Your task to perform on an android device: change the upload size in google photos Image 0: 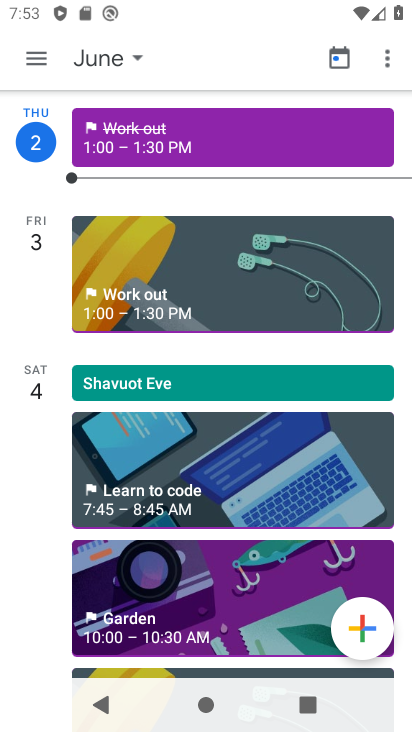
Step 0: press home button
Your task to perform on an android device: change the upload size in google photos Image 1: 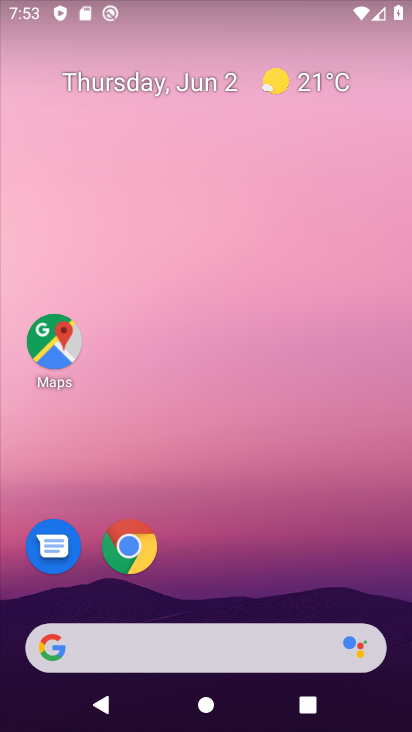
Step 1: click (59, 326)
Your task to perform on an android device: change the upload size in google photos Image 2: 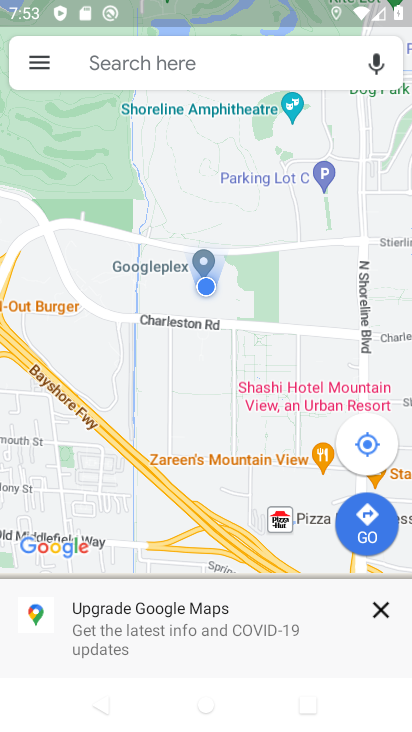
Step 2: press back button
Your task to perform on an android device: change the upload size in google photos Image 3: 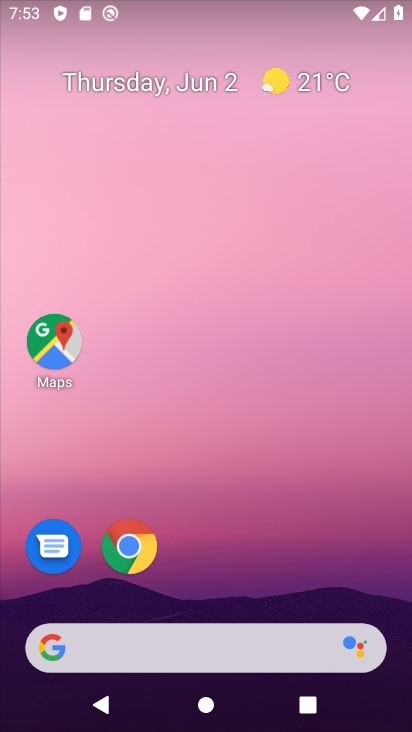
Step 3: drag from (264, 553) to (267, 29)
Your task to perform on an android device: change the upload size in google photos Image 4: 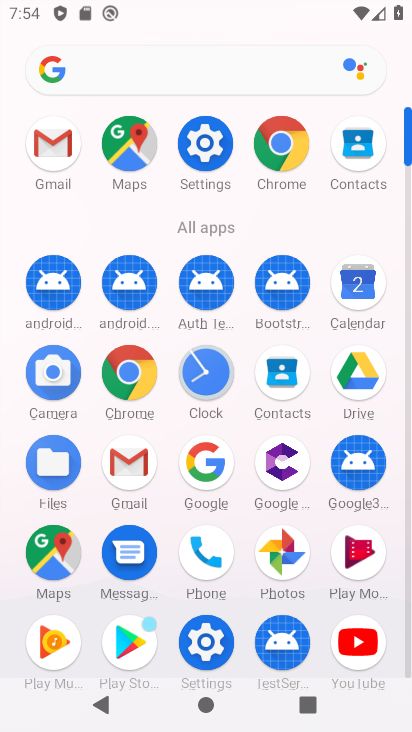
Step 4: click (283, 550)
Your task to perform on an android device: change the upload size in google photos Image 5: 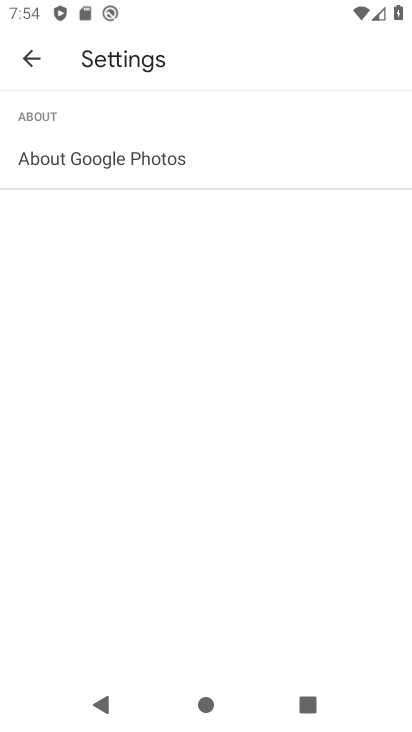
Step 5: click (29, 51)
Your task to perform on an android device: change the upload size in google photos Image 6: 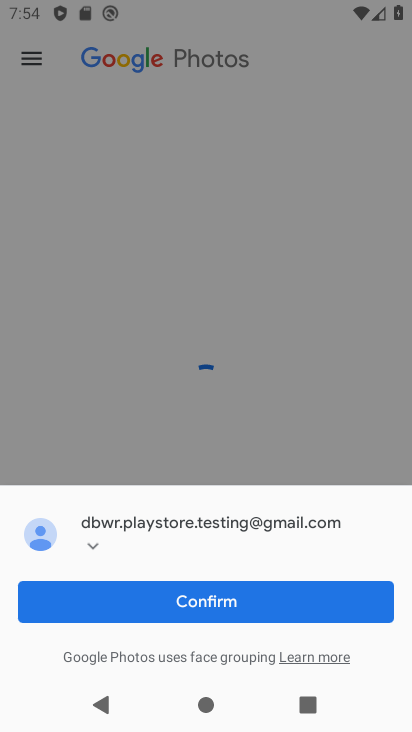
Step 6: click (32, 57)
Your task to perform on an android device: change the upload size in google photos Image 7: 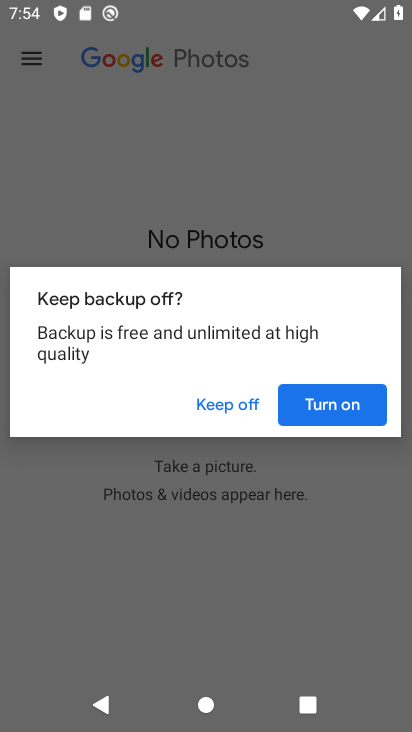
Step 7: click (324, 408)
Your task to perform on an android device: change the upload size in google photos Image 8: 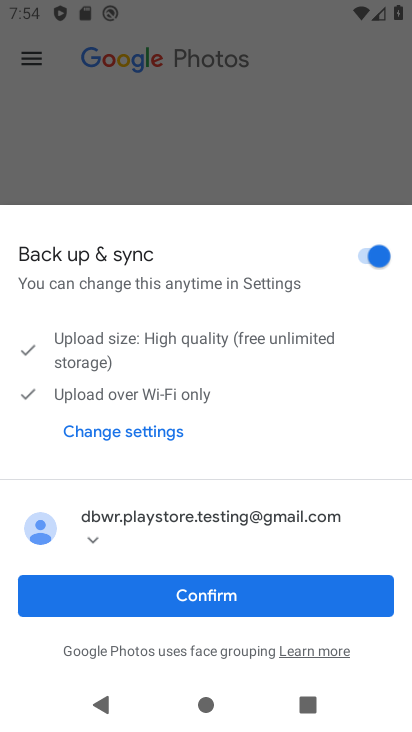
Step 8: click (355, 591)
Your task to perform on an android device: change the upload size in google photos Image 9: 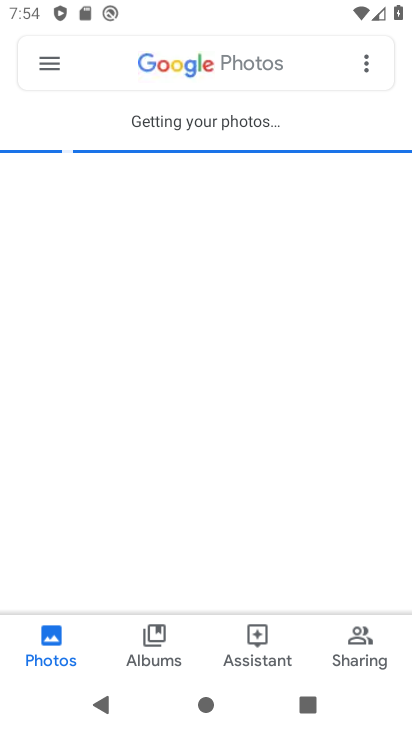
Step 9: click (36, 59)
Your task to perform on an android device: change the upload size in google photos Image 10: 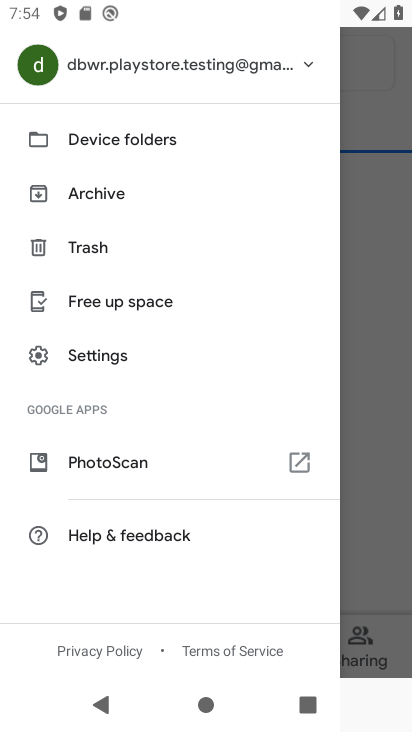
Step 10: click (106, 348)
Your task to perform on an android device: change the upload size in google photos Image 11: 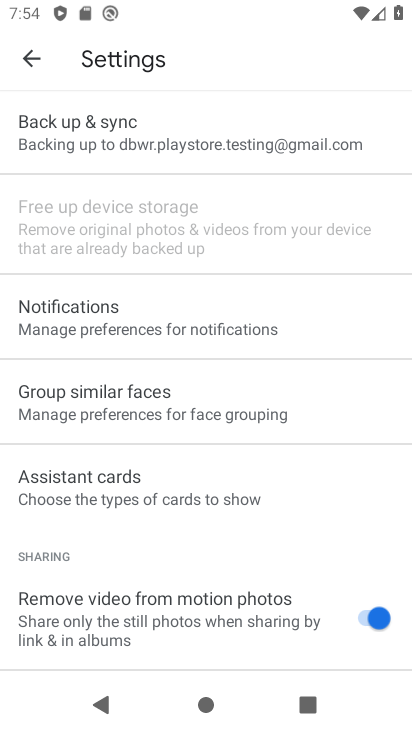
Step 11: click (102, 121)
Your task to perform on an android device: change the upload size in google photos Image 12: 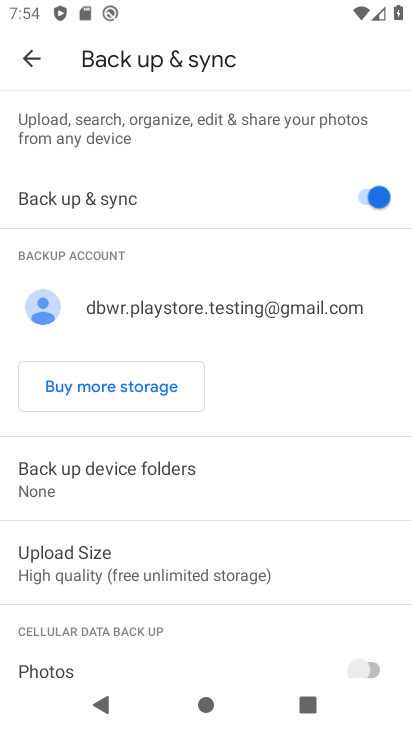
Step 12: click (133, 565)
Your task to perform on an android device: change the upload size in google photos Image 13: 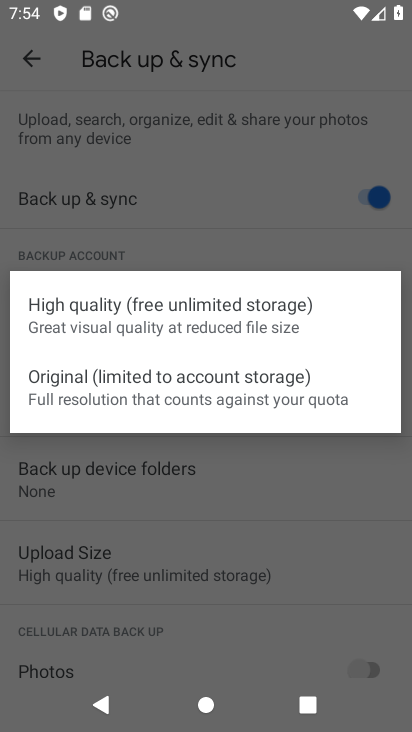
Step 13: click (192, 384)
Your task to perform on an android device: change the upload size in google photos Image 14: 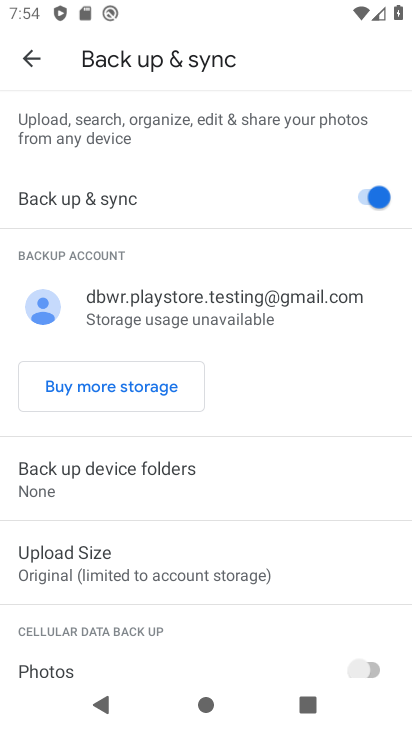
Step 14: task complete